Your task to perform on an android device: Go to sound settings Image 0: 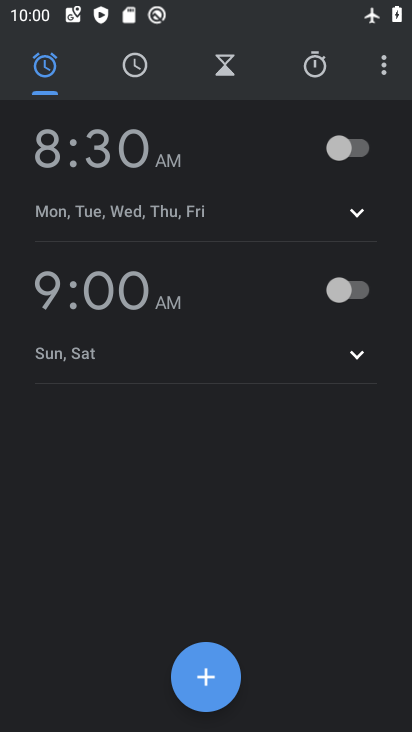
Step 0: press home button
Your task to perform on an android device: Go to sound settings Image 1: 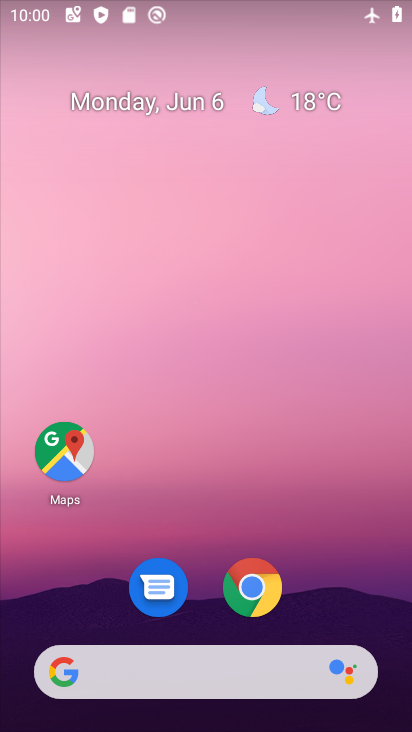
Step 1: drag from (379, 495) to (317, 107)
Your task to perform on an android device: Go to sound settings Image 2: 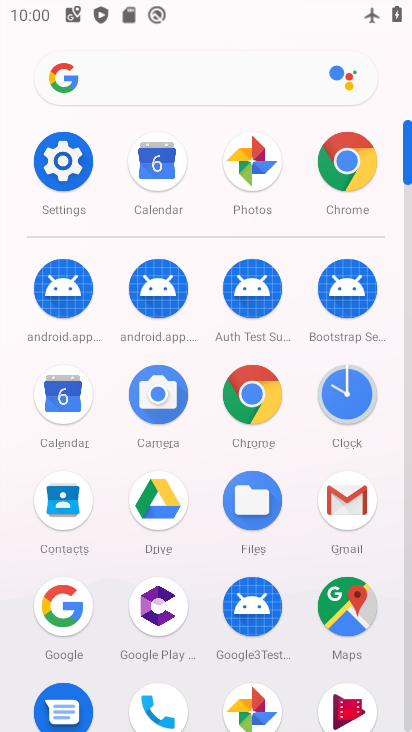
Step 2: click (42, 168)
Your task to perform on an android device: Go to sound settings Image 3: 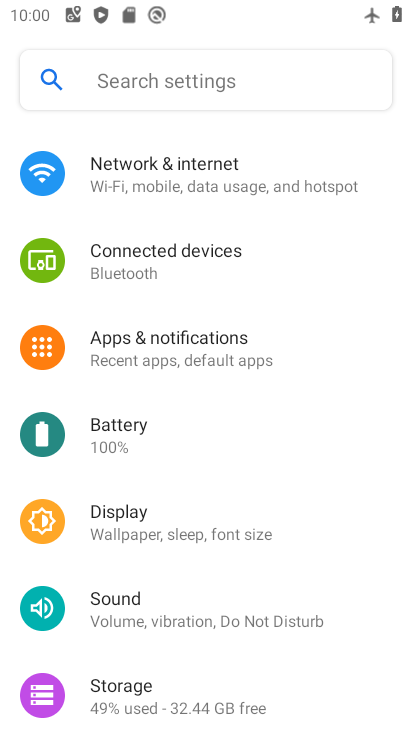
Step 3: click (189, 623)
Your task to perform on an android device: Go to sound settings Image 4: 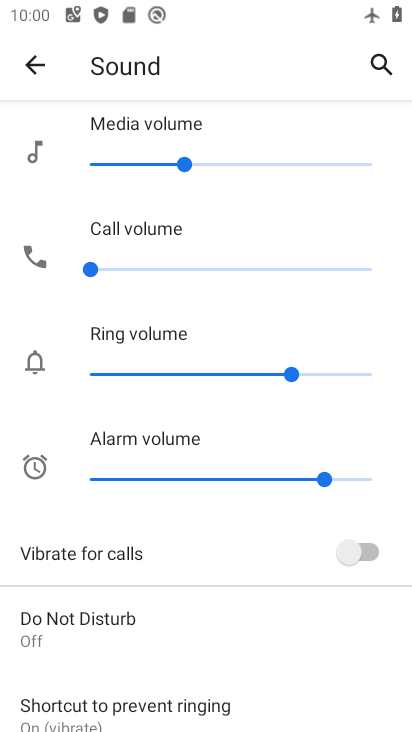
Step 4: task complete